Your task to perform on an android device: clear history in the chrome app Image 0: 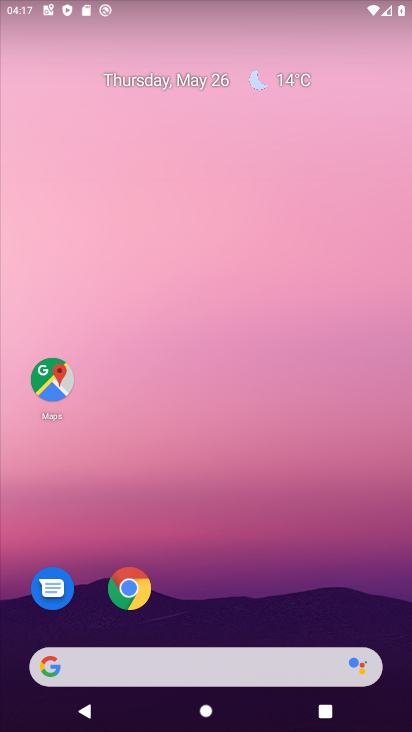
Step 0: drag from (320, 589) to (325, 312)
Your task to perform on an android device: clear history in the chrome app Image 1: 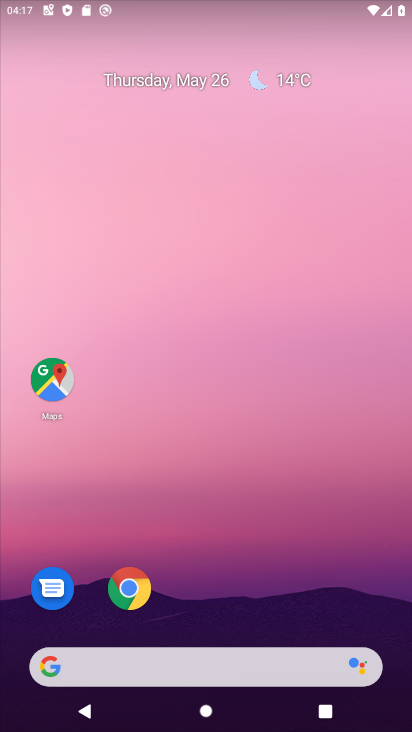
Step 1: click (138, 584)
Your task to perform on an android device: clear history in the chrome app Image 2: 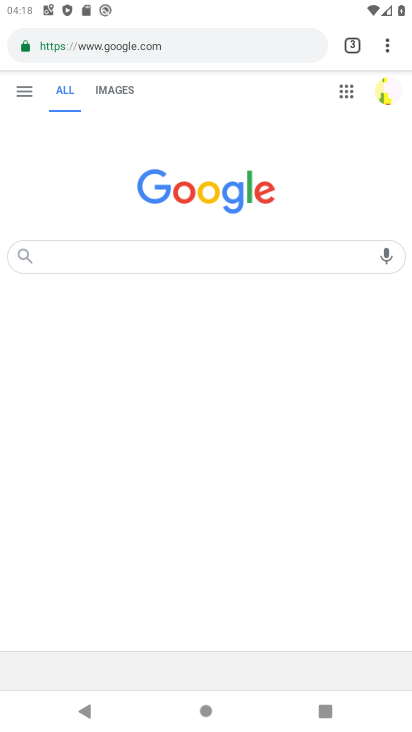
Step 2: click (393, 55)
Your task to perform on an android device: clear history in the chrome app Image 3: 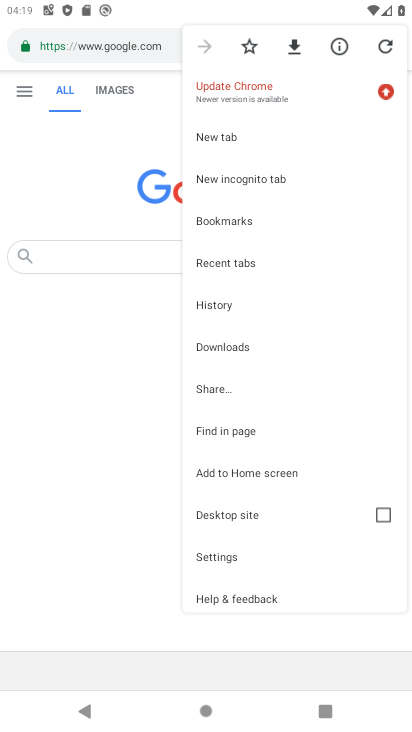
Step 3: click (267, 280)
Your task to perform on an android device: clear history in the chrome app Image 4: 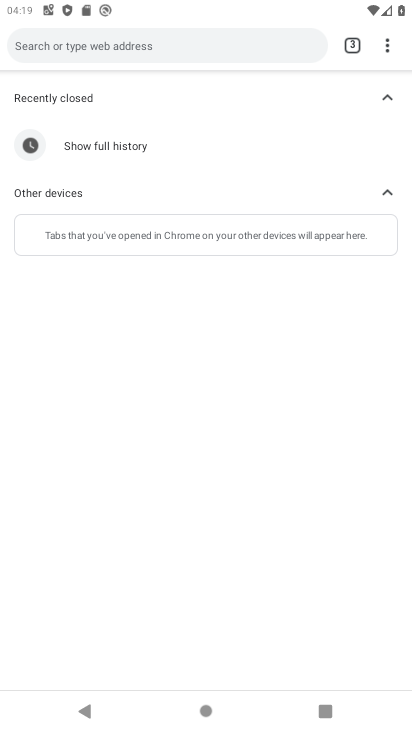
Step 4: task complete